Your task to perform on an android device: Open accessibility settings Image 0: 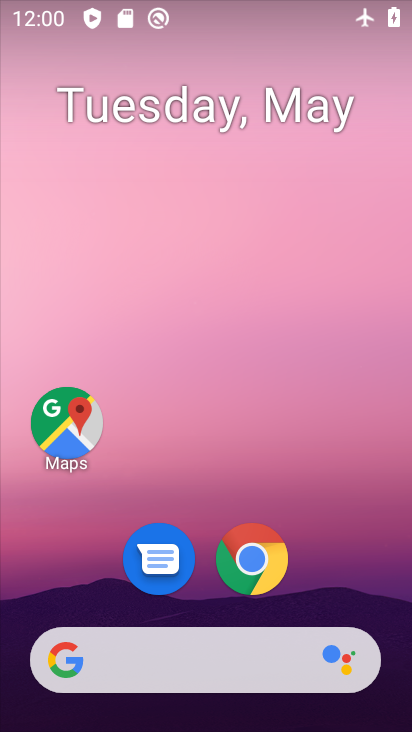
Step 0: drag from (71, 614) to (243, 208)
Your task to perform on an android device: Open accessibility settings Image 1: 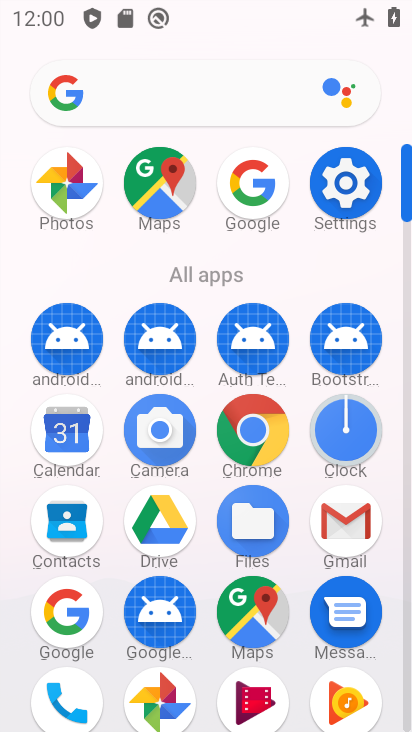
Step 1: drag from (179, 645) to (255, 402)
Your task to perform on an android device: Open accessibility settings Image 2: 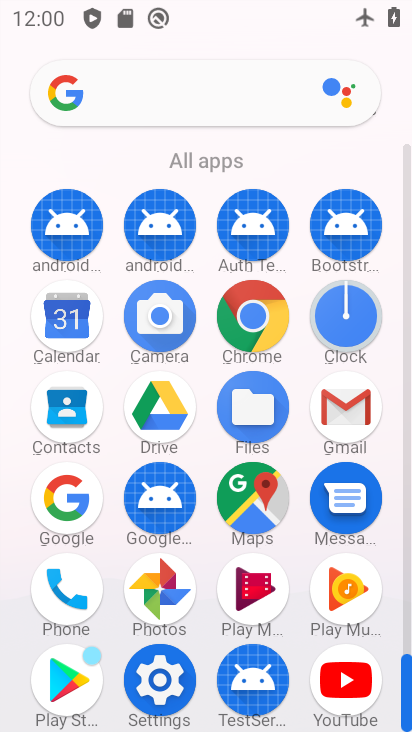
Step 2: drag from (198, 672) to (242, 489)
Your task to perform on an android device: Open accessibility settings Image 3: 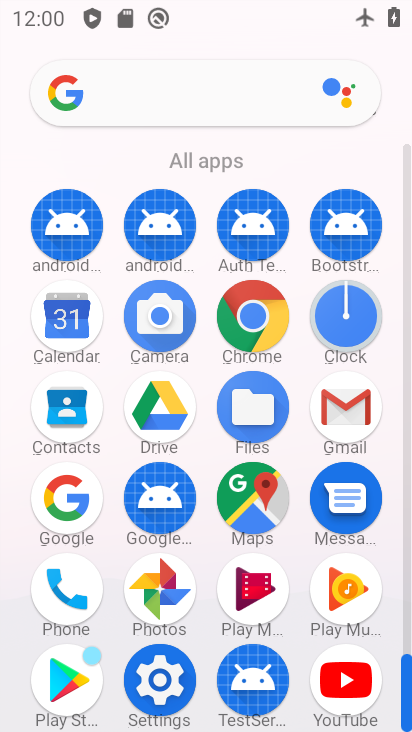
Step 3: click (169, 683)
Your task to perform on an android device: Open accessibility settings Image 4: 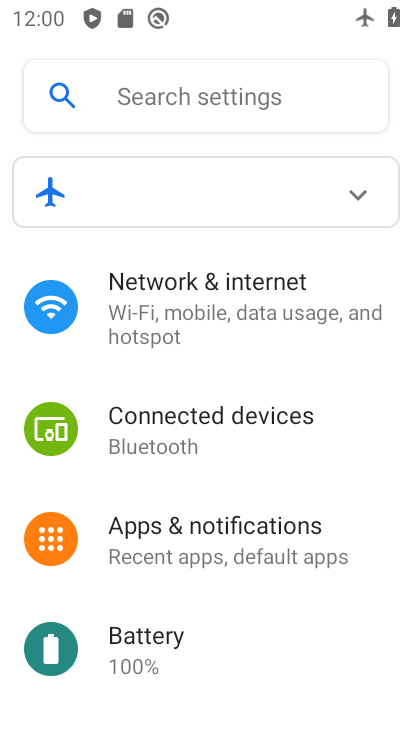
Step 4: drag from (187, 674) to (306, 279)
Your task to perform on an android device: Open accessibility settings Image 5: 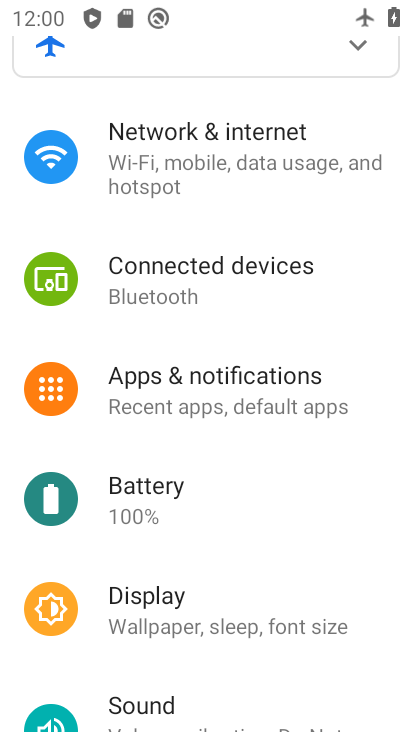
Step 5: drag from (160, 635) to (313, 218)
Your task to perform on an android device: Open accessibility settings Image 6: 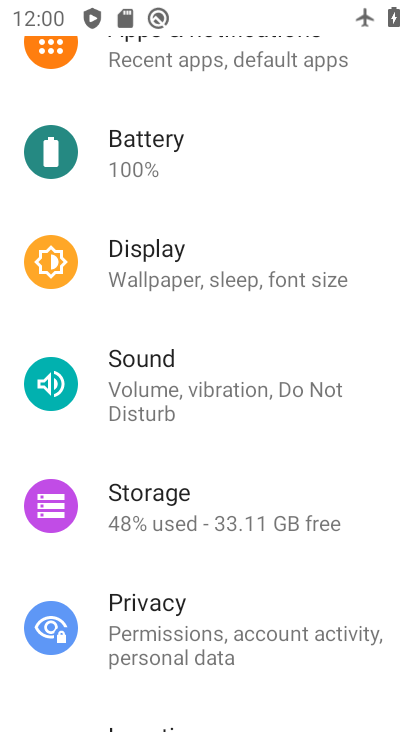
Step 6: drag from (213, 588) to (331, 278)
Your task to perform on an android device: Open accessibility settings Image 7: 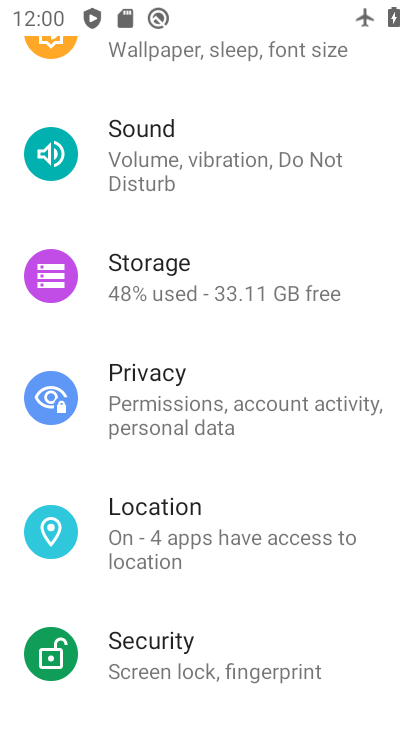
Step 7: drag from (191, 629) to (326, 263)
Your task to perform on an android device: Open accessibility settings Image 8: 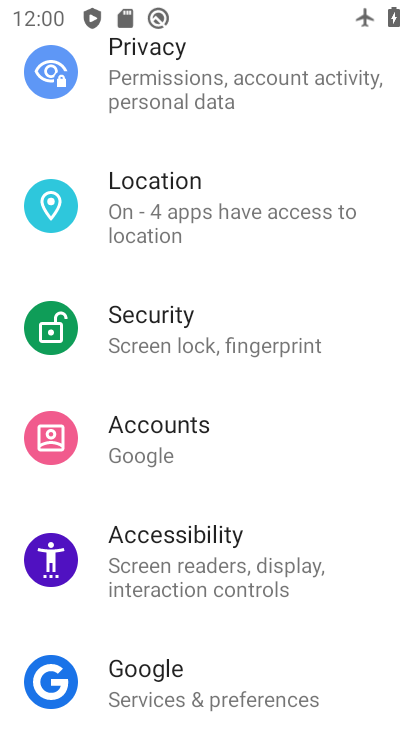
Step 8: click (245, 564)
Your task to perform on an android device: Open accessibility settings Image 9: 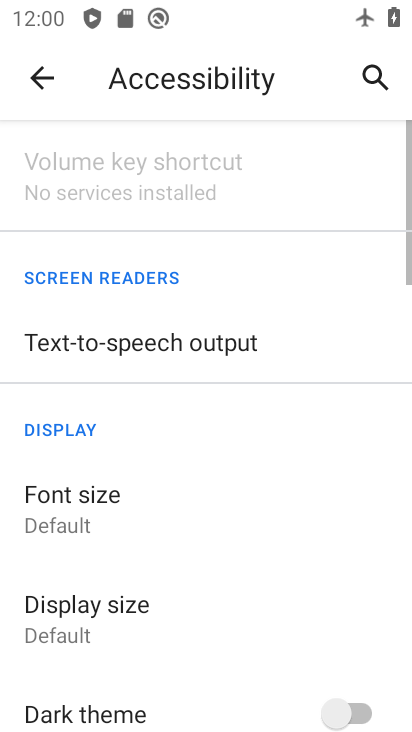
Step 9: task complete